Your task to perform on an android device: Is it going to rain this weekend? Image 0: 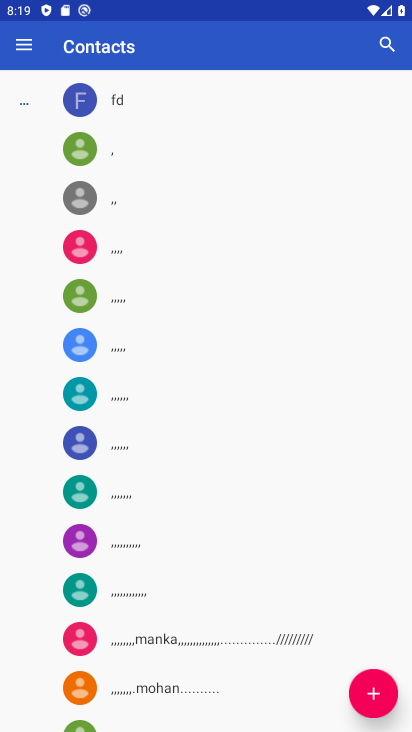
Step 0: press home button
Your task to perform on an android device: Is it going to rain this weekend? Image 1: 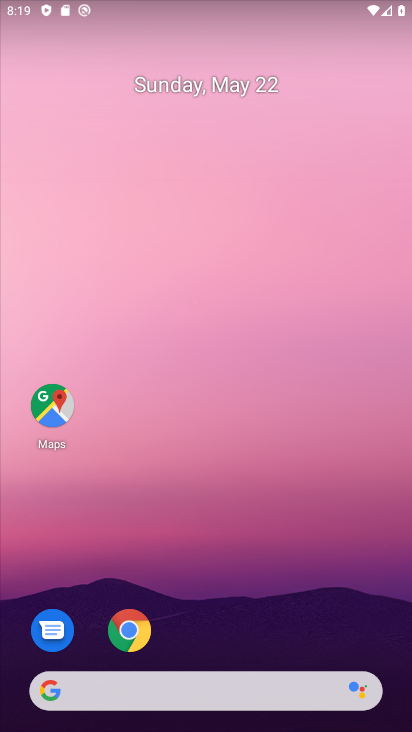
Step 1: click (56, 696)
Your task to perform on an android device: Is it going to rain this weekend? Image 2: 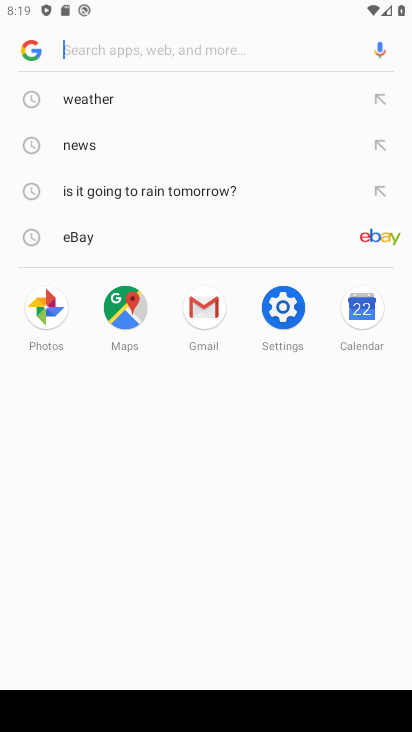
Step 2: click (81, 97)
Your task to perform on an android device: Is it going to rain this weekend? Image 3: 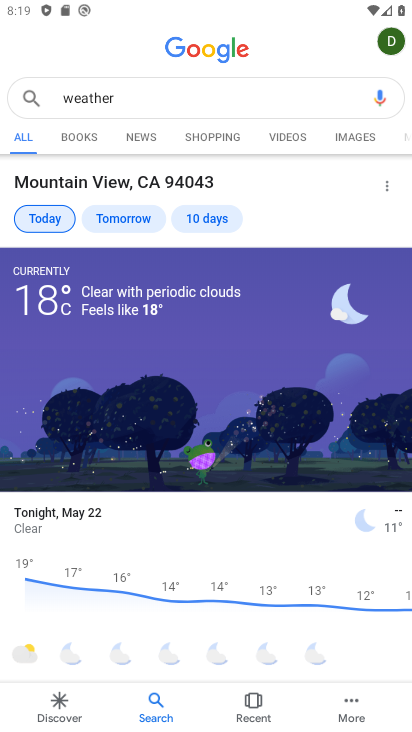
Step 3: click (215, 218)
Your task to perform on an android device: Is it going to rain this weekend? Image 4: 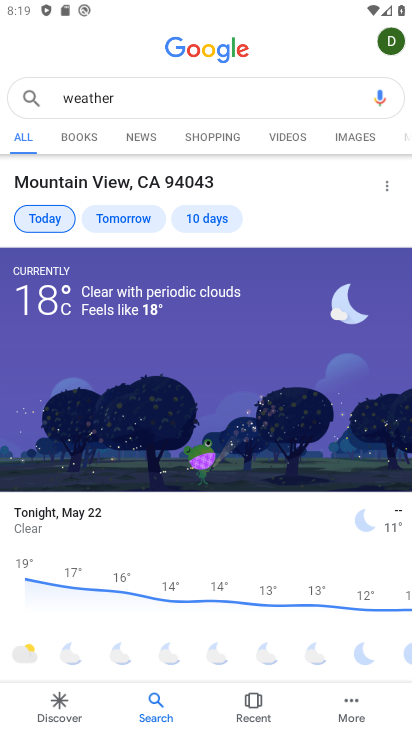
Step 4: click (206, 223)
Your task to perform on an android device: Is it going to rain this weekend? Image 5: 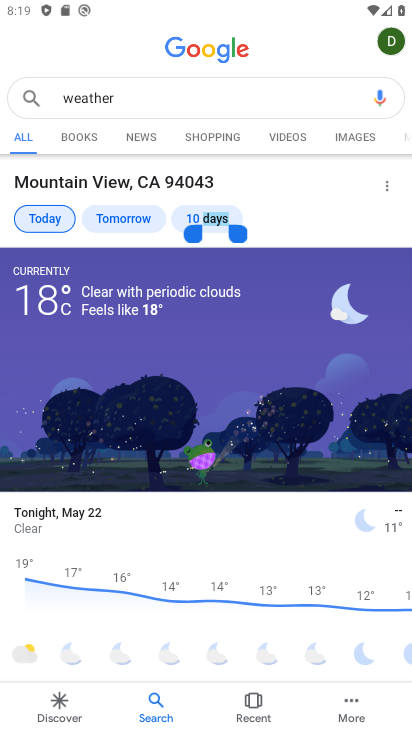
Step 5: click (207, 217)
Your task to perform on an android device: Is it going to rain this weekend? Image 6: 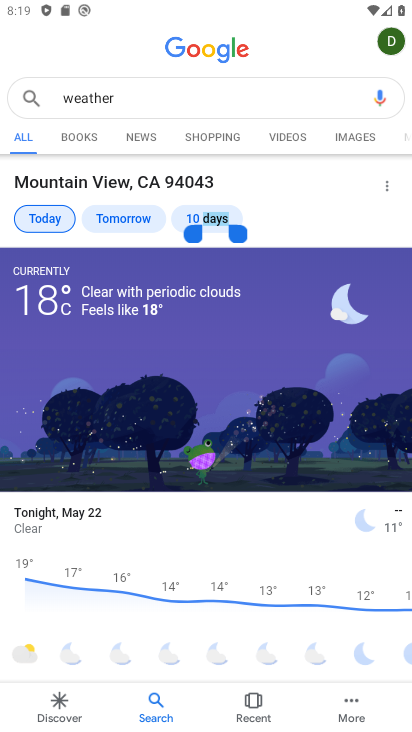
Step 6: click (129, 212)
Your task to perform on an android device: Is it going to rain this weekend? Image 7: 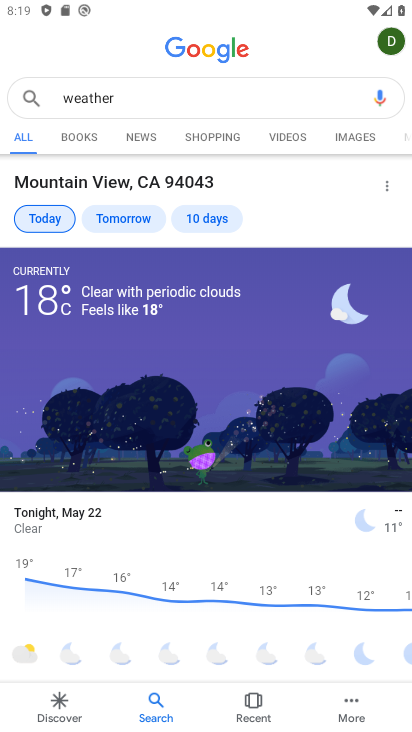
Step 7: click (167, 707)
Your task to perform on an android device: Is it going to rain this weekend? Image 8: 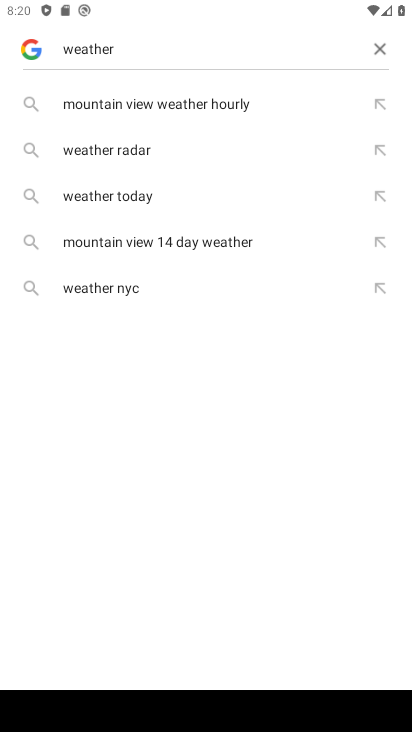
Step 8: press back button
Your task to perform on an android device: Is it going to rain this weekend? Image 9: 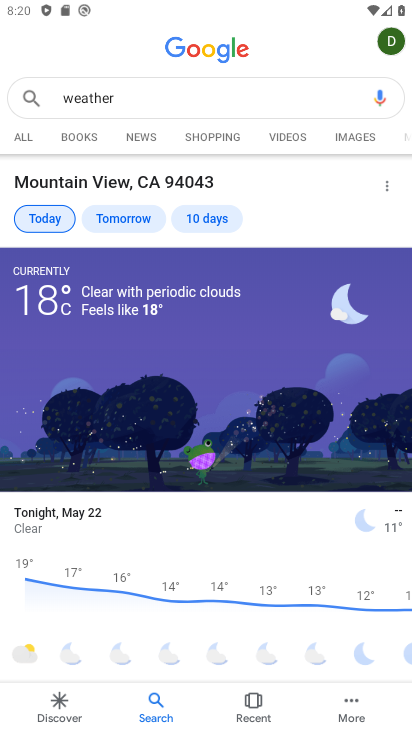
Step 9: click (198, 217)
Your task to perform on an android device: Is it going to rain this weekend? Image 10: 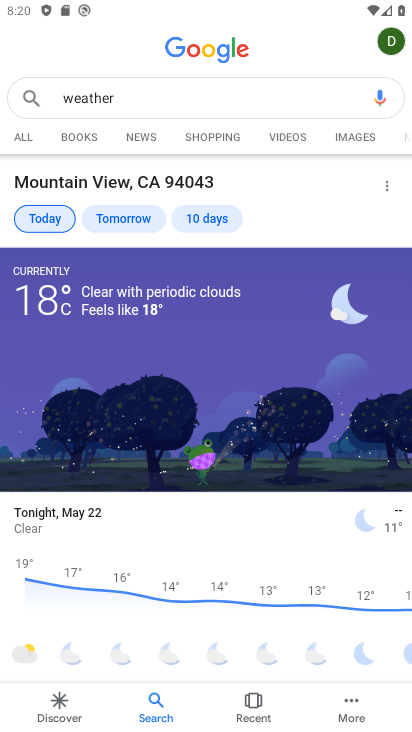
Step 10: click (199, 218)
Your task to perform on an android device: Is it going to rain this weekend? Image 11: 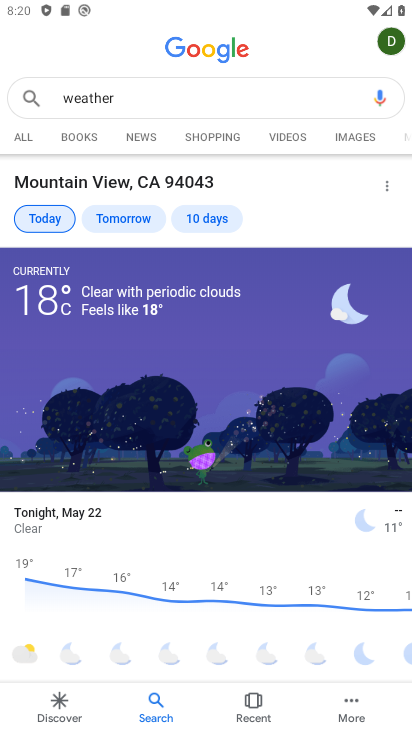
Step 11: click (209, 215)
Your task to perform on an android device: Is it going to rain this weekend? Image 12: 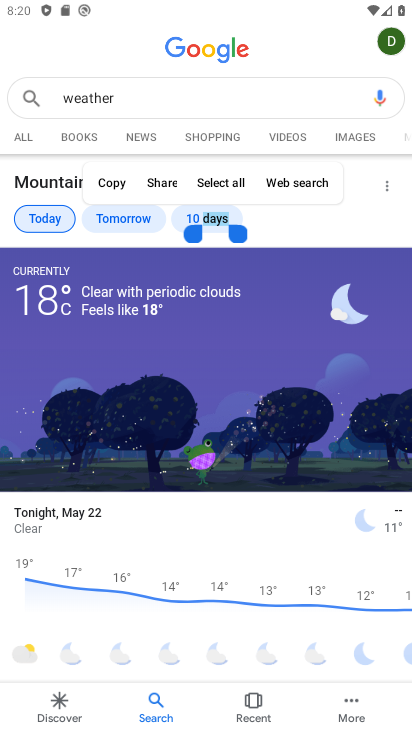
Step 12: task complete